Your task to perform on an android device: change text size in settings app Image 0: 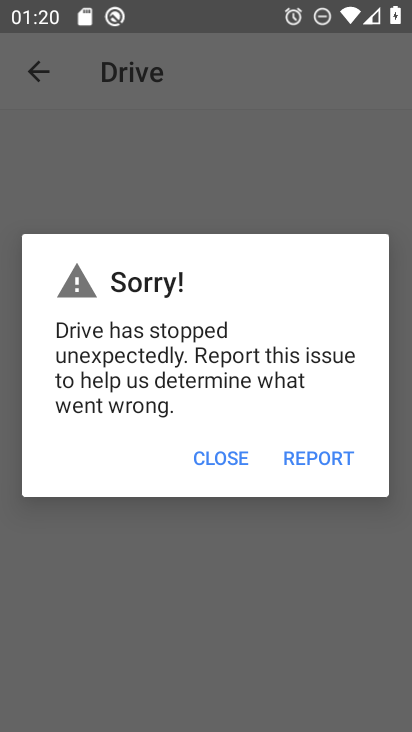
Step 0: press home button
Your task to perform on an android device: change text size in settings app Image 1: 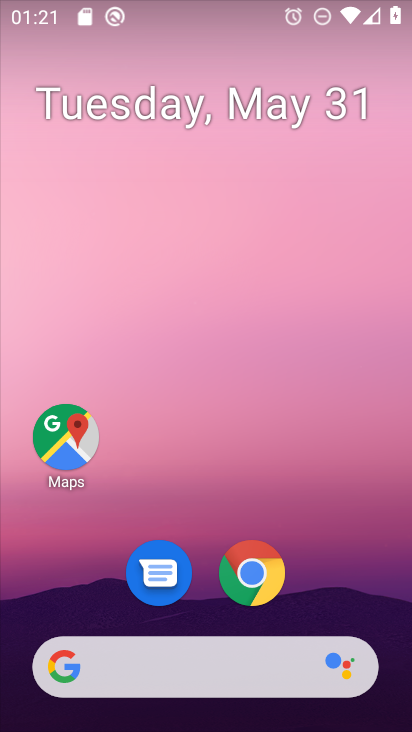
Step 1: drag from (161, 629) to (251, 20)
Your task to perform on an android device: change text size in settings app Image 2: 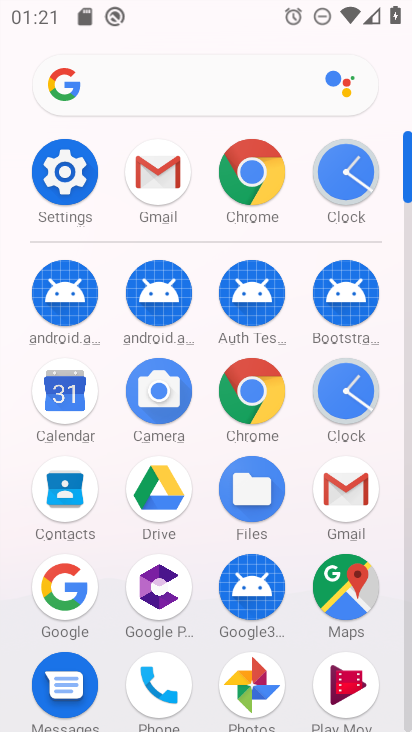
Step 2: click (47, 174)
Your task to perform on an android device: change text size in settings app Image 3: 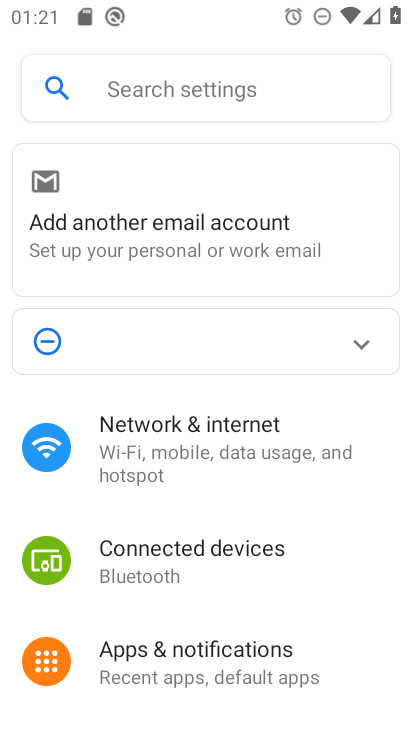
Step 3: drag from (287, 671) to (304, 142)
Your task to perform on an android device: change text size in settings app Image 4: 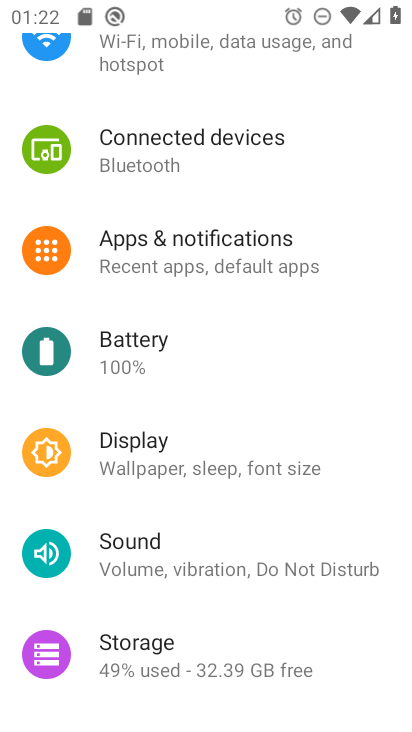
Step 4: click (256, 462)
Your task to perform on an android device: change text size in settings app Image 5: 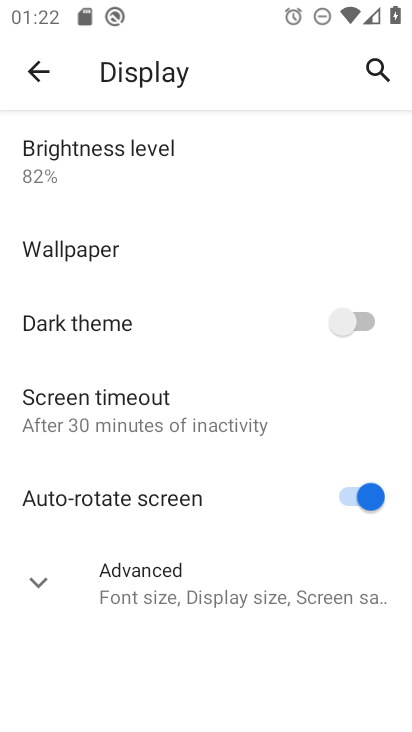
Step 5: click (200, 596)
Your task to perform on an android device: change text size in settings app Image 6: 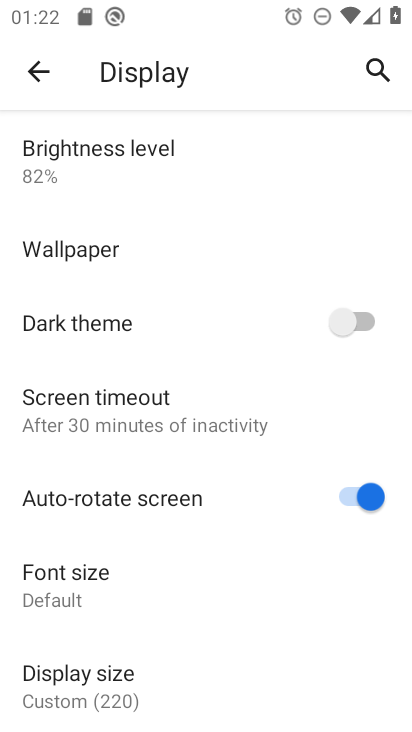
Step 6: click (78, 588)
Your task to perform on an android device: change text size in settings app Image 7: 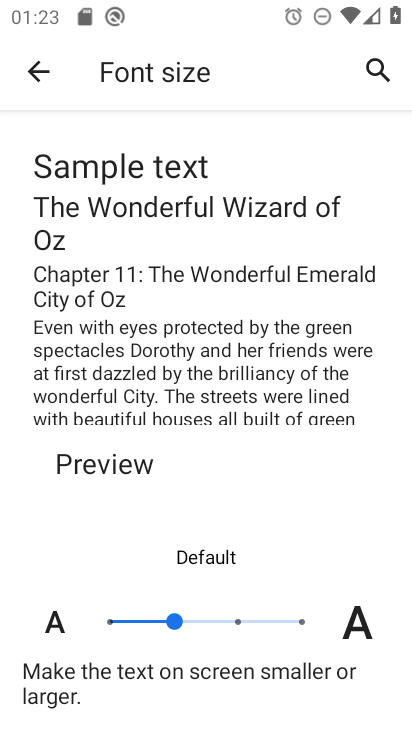
Step 7: click (243, 624)
Your task to perform on an android device: change text size in settings app Image 8: 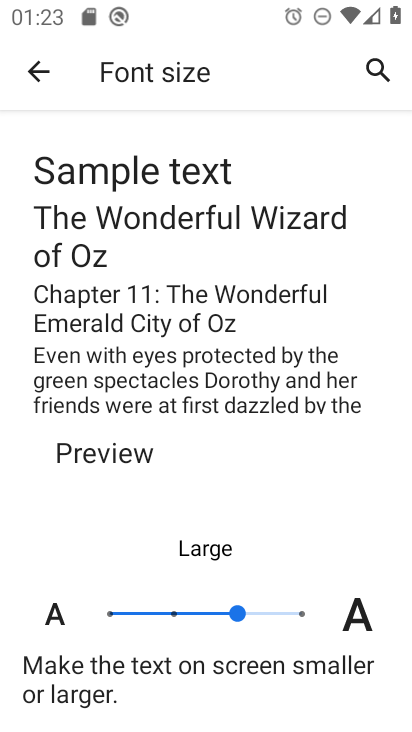
Step 8: task complete